Your task to perform on an android device: Show me popular games on the Play Store Image 0: 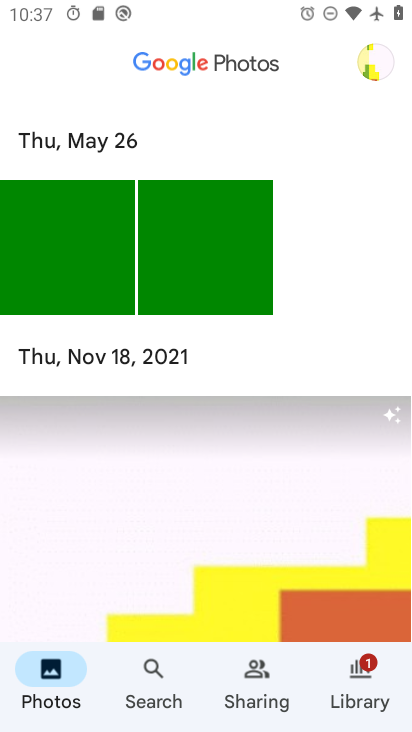
Step 0: press home button
Your task to perform on an android device: Show me popular games on the Play Store Image 1: 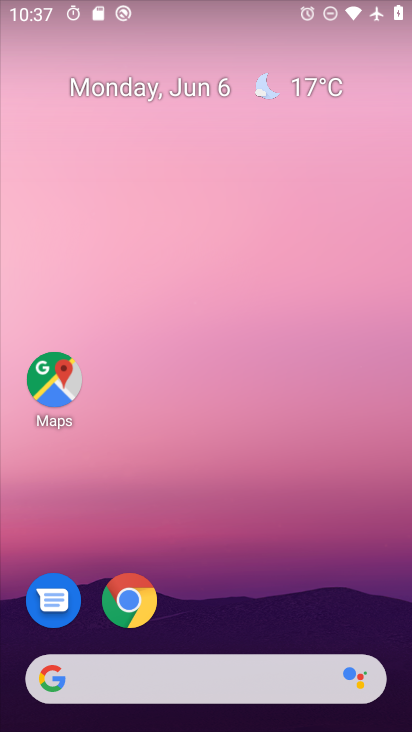
Step 1: drag from (255, 265) to (191, 6)
Your task to perform on an android device: Show me popular games on the Play Store Image 2: 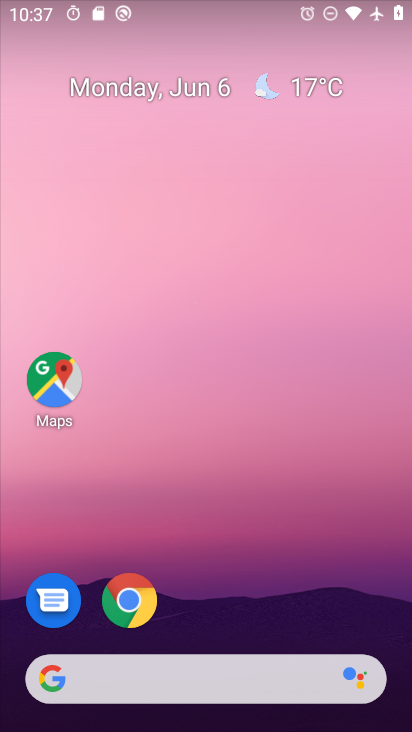
Step 2: drag from (275, 386) to (234, 20)
Your task to perform on an android device: Show me popular games on the Play Store Image 3: 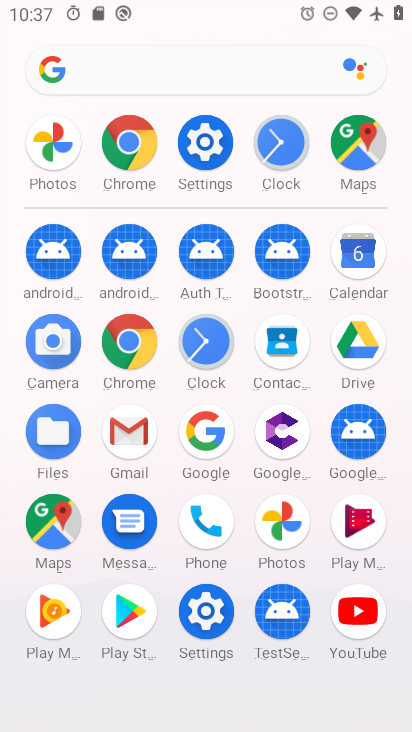
Step 3: click (131, 621)
Your task to perform on an android device: Show me popular games on the Play Store Image 4: 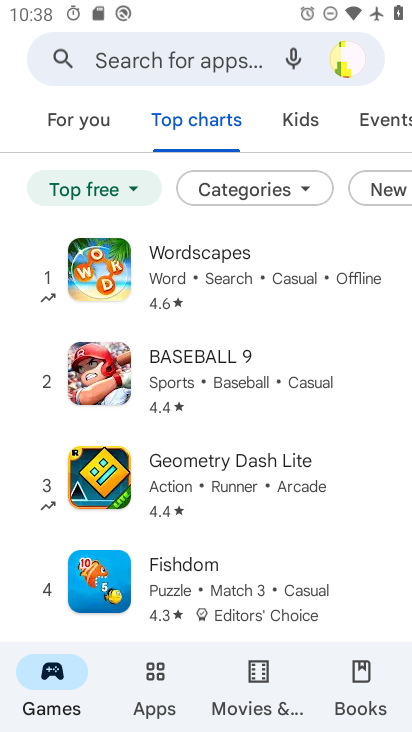
Step 4: task complete